Your task to perform on an android device: Open the Play Movies app and select the watchlist tab. Image 0: 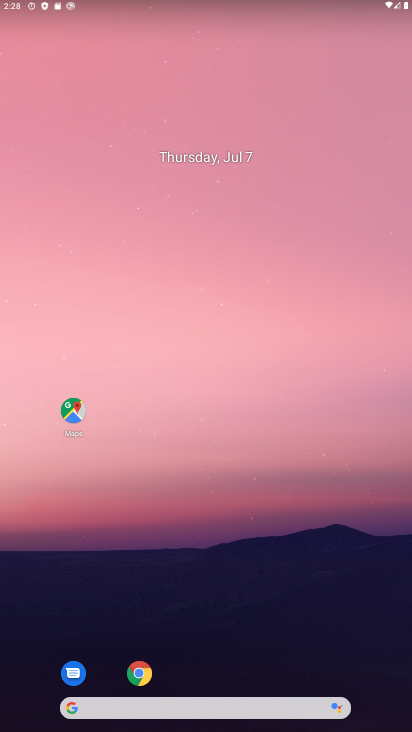
Step 0: drag from (230, 663) to (218, 237)
Your task to perform on an android device: Open the Play Movies app and select the watchlist tab. Image 1: 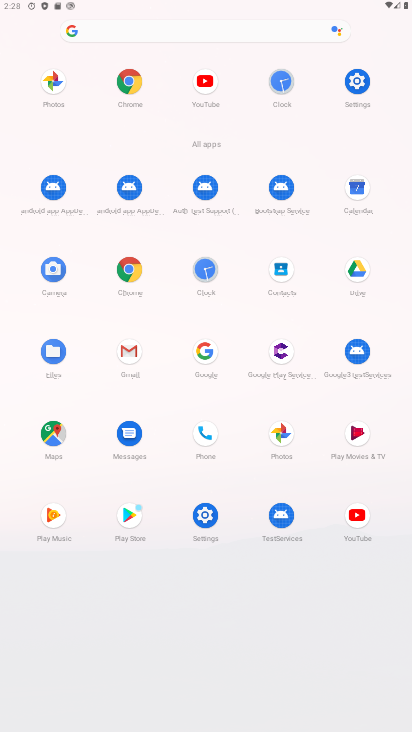
Step 1: click (358, 412)
Your task to perform on an android device: Open the Play Movies app and select the watchlist tab. Image 2: 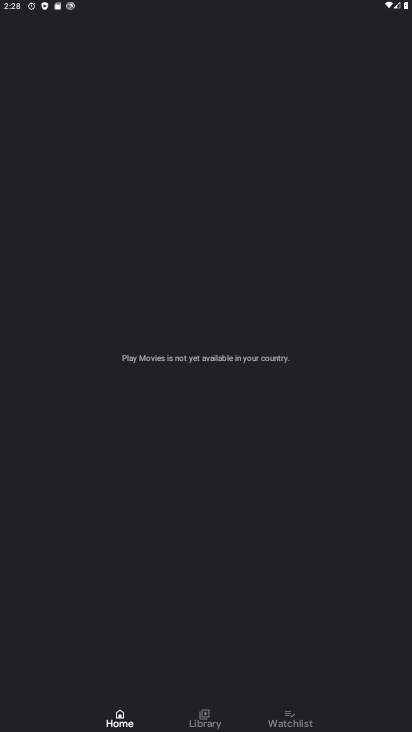
Step 2: click (298, 712)
Your task to perform on an android device: Open the Play Movies app and select the watchlist tab. Image 3: 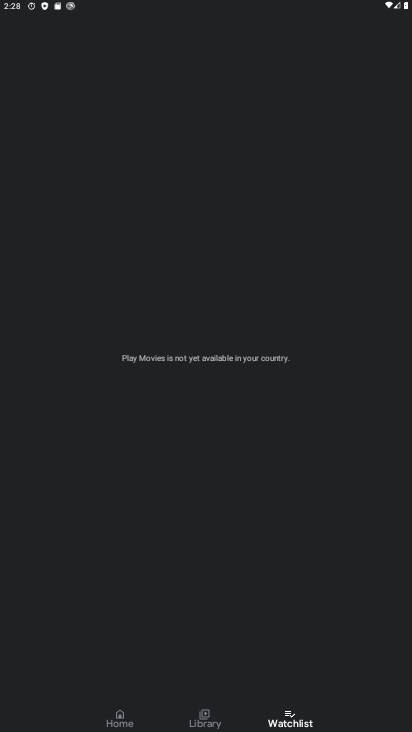
Step 3: task complete